Your task to perform on an android device: see sites visited before in the chrome app Image 0: 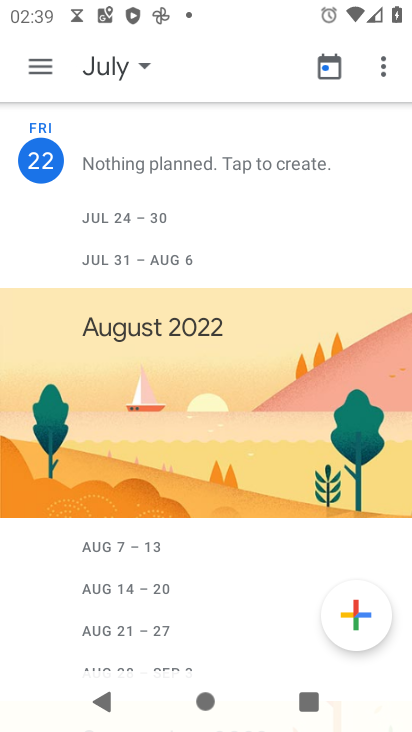
Step 0: press home button
Your task to perform on an android device: see sites visited before in the chrome app Image 1: 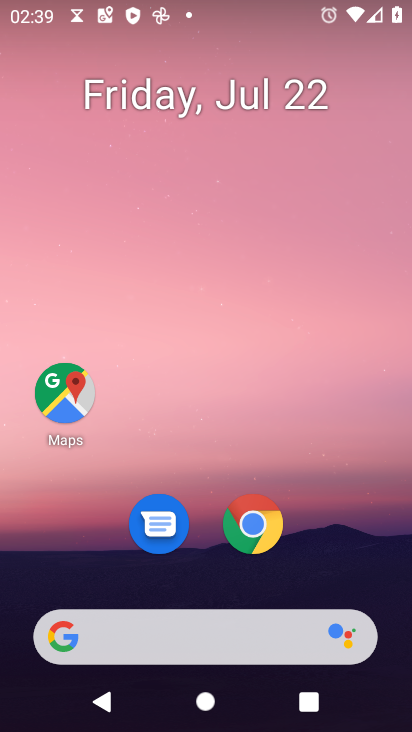
Step 1: click (263, 536)
Your task to perform on an android device: see sites visited before in the chrome app Image 2: 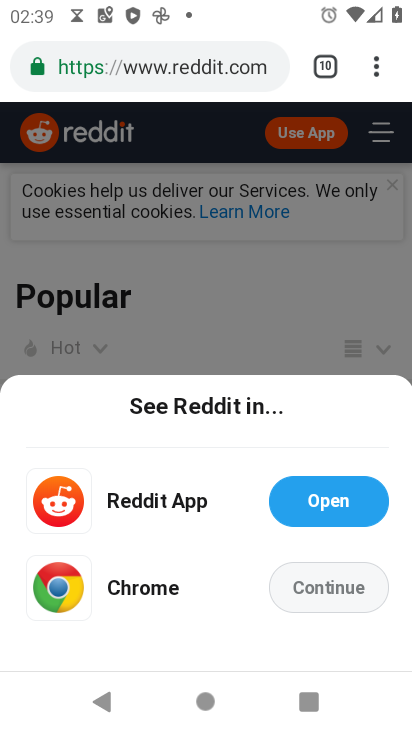
Step 2: task complete